Your task to perform on an android device: allow cookies in the chrome app Image 0: 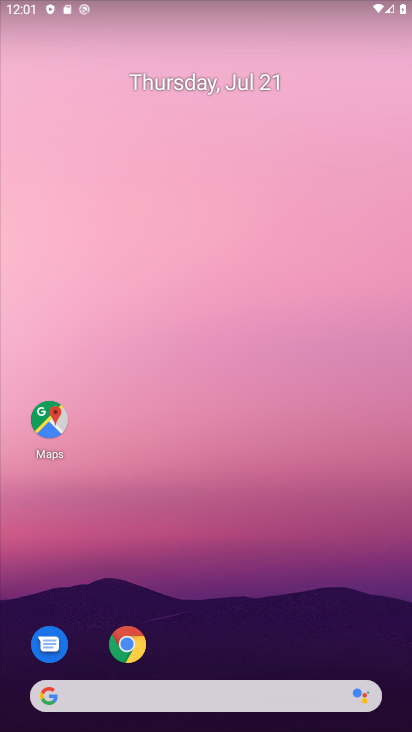
Step 0: press home button
Your task to perform on an android device: allow cookies in the chrome app Image 1: 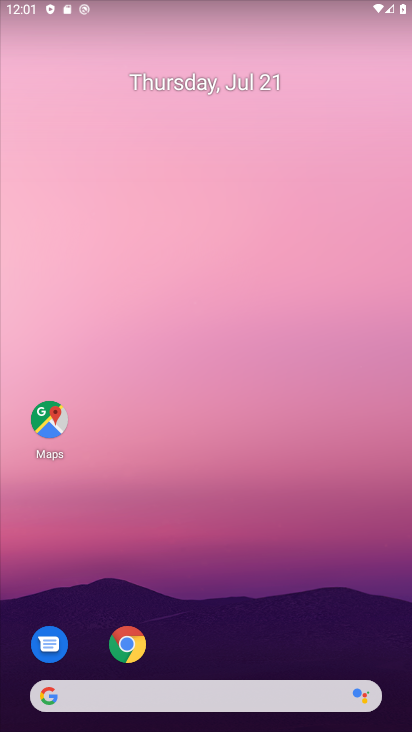
Step 1: drag from (273, 647) to (358, 6)
Your task to perform on an android device: allow cookies in the chrome app Image 2: 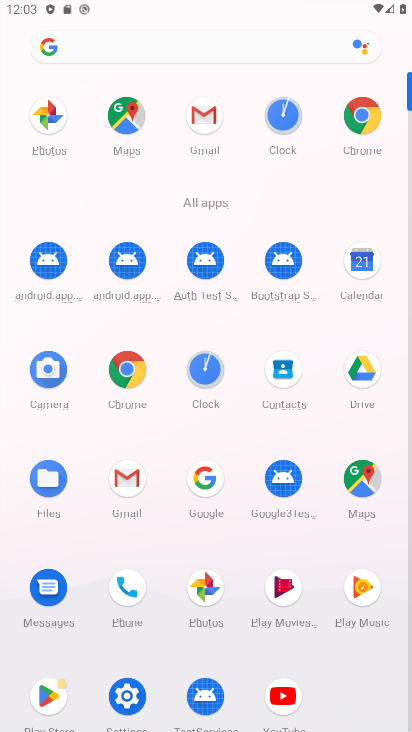
Step 2: click (146, 383)
Your task to perform on an android device: allow cookies in the chrome app Image 3: 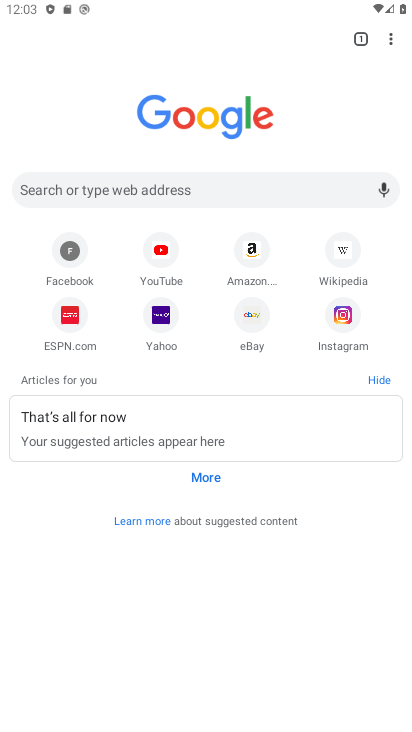
Step 3: drag from (391, 40) to (240, 320)
Your task to perform on an android device: allow cookies in the chrome app Image 4: 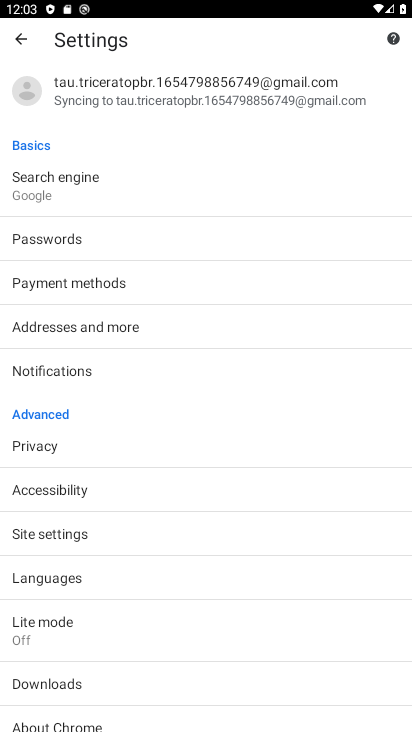
Step 4: click (125, 536)
Your task to perform on an android device: allow cookies in the chrome app Image 5: 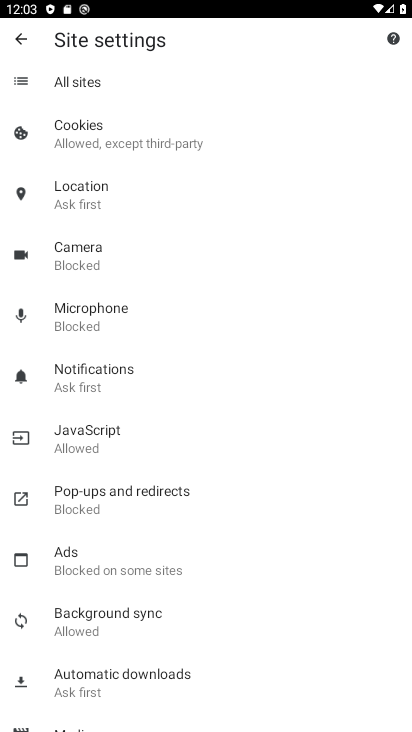
Step 5: click (174, 122)
Your task to perform on an android device: allow cookies in the chrome app Image 6: 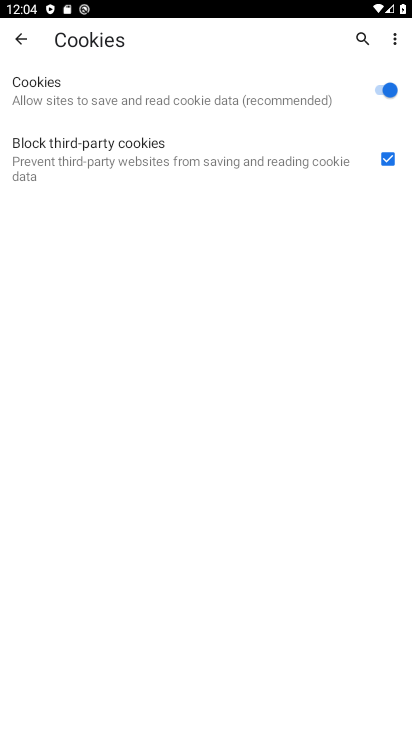
Step 6: task complete